Your task to perform on an android device: Open Google Chrome Image 0: 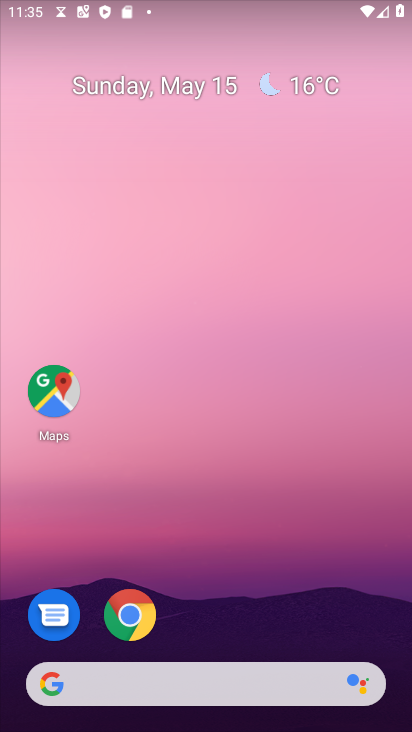
Step 0: drag from (254, 669) to (399, 13)
Your task to perform on an android device: Open Google Chrome Image 1: 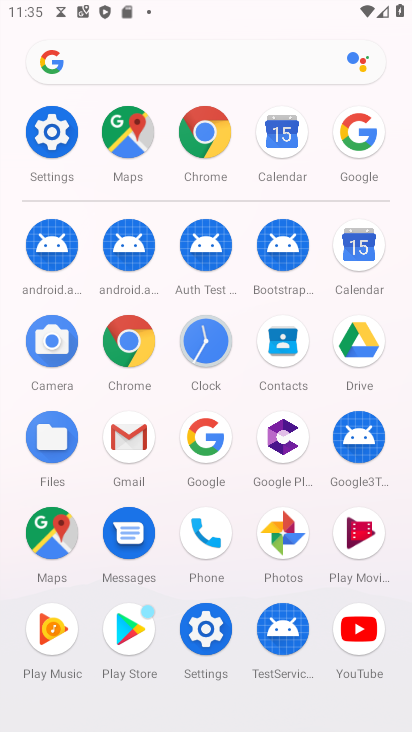
Step 1: click (113, 327)
Your task to perform on an android device: Open Google Chrome Image 2: 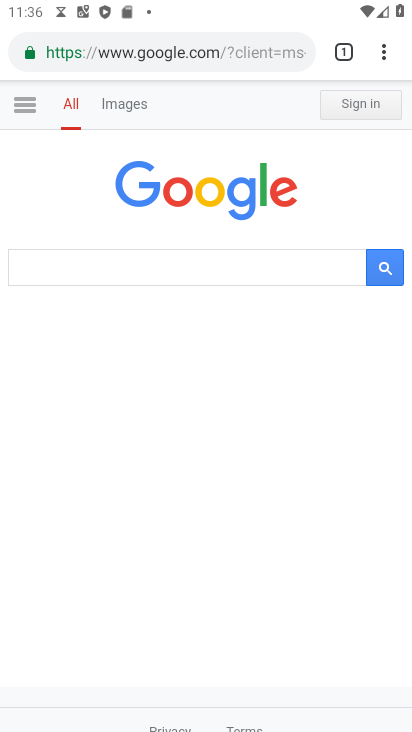
Step 2: task complete